Your task to perform on an android device: open a new tab in the chrome app Image 0: 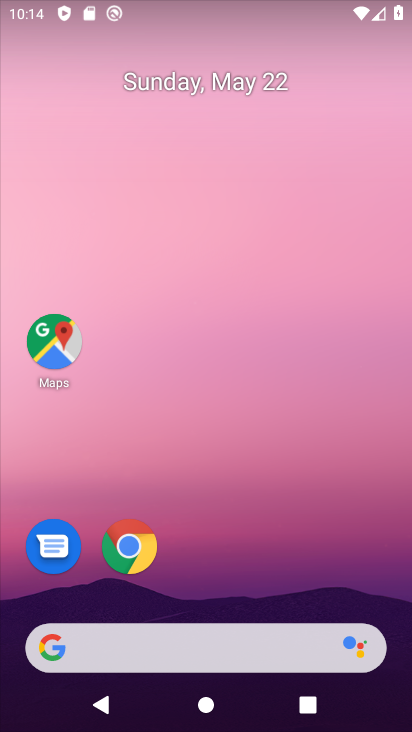
Step 0: drag from (231, 579) to (246, 175)
Your task to perform on an android device: open a new tab in the chrome app Image 1: 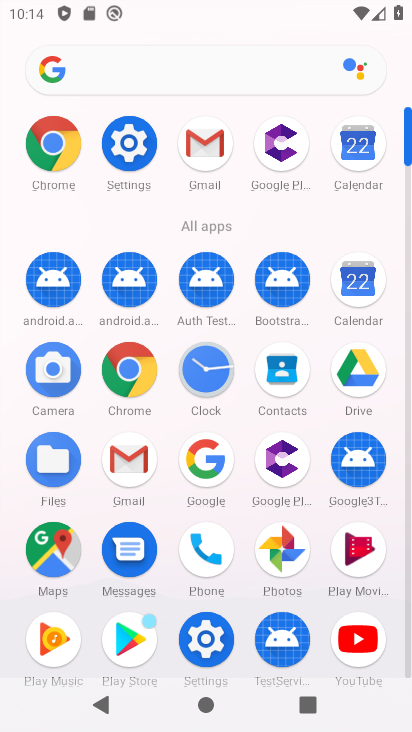
Step 1: click (122, 364)
Your task to perform on an android device: open a new tab in the chrome app Image 2: 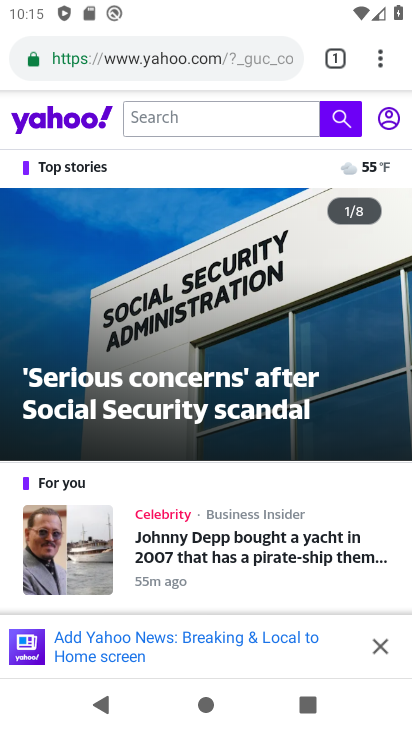
Step 2: click (382, 59)
Your task to perform on an android device: open a new tab in the chrome app Image 3: 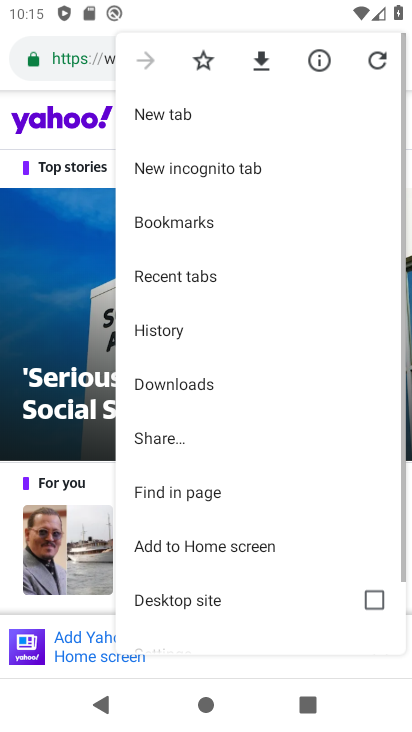
Step 3: click (173, 126)
Your task to perform on an android device: open a new tab in the chrome app Image 4: 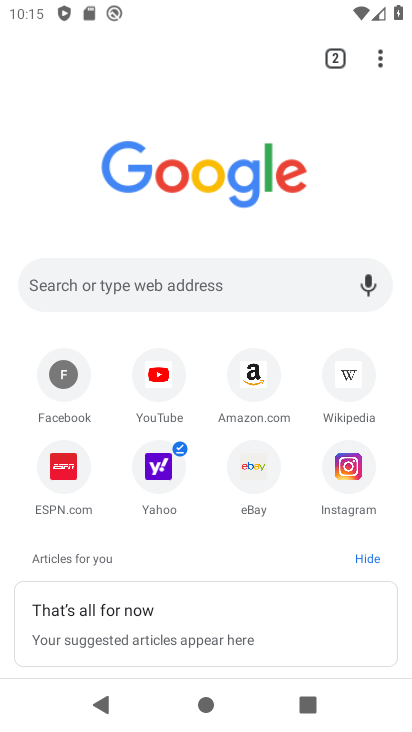
Step 4: task complete